Your task to perform on an android device: Go to Android settings Image 0: 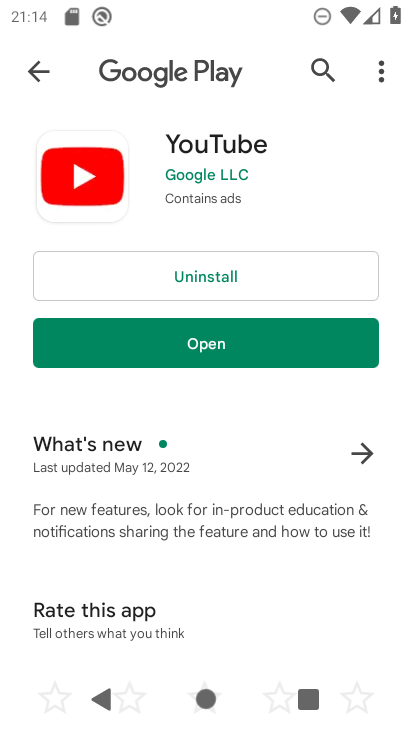
Step 0: press home button
Your task to perform on an android device: Go to Android settings Image 1: 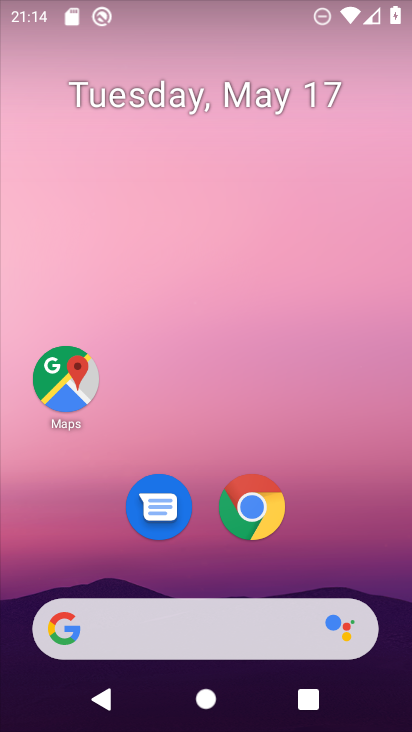
Step 1: drag from (317, 576) to (299, 4)
Your task to perform on an android device: Go to Android settings Image 2: 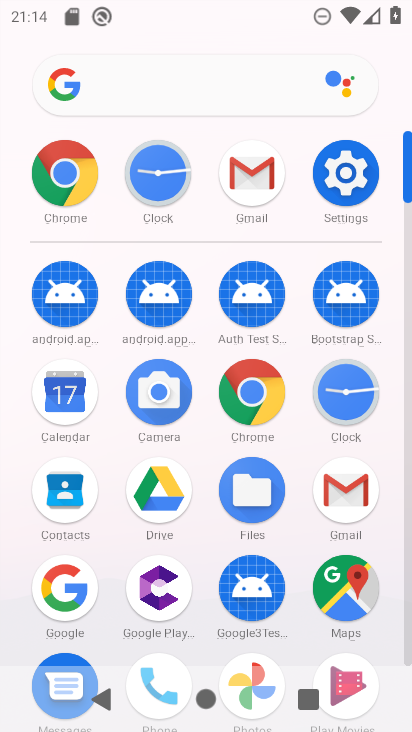
Step 2: click (355, 167)
Your task to perform on an android device: Go to Android settings Image 3: 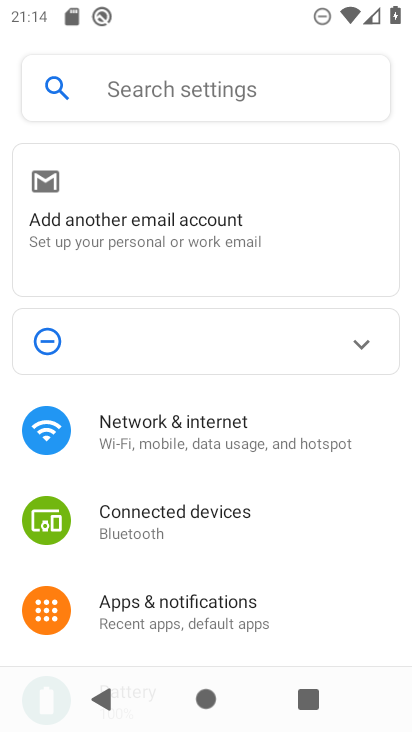
Step 3: task complete